Your task to perform on an android device: Open internet settings Image 0: 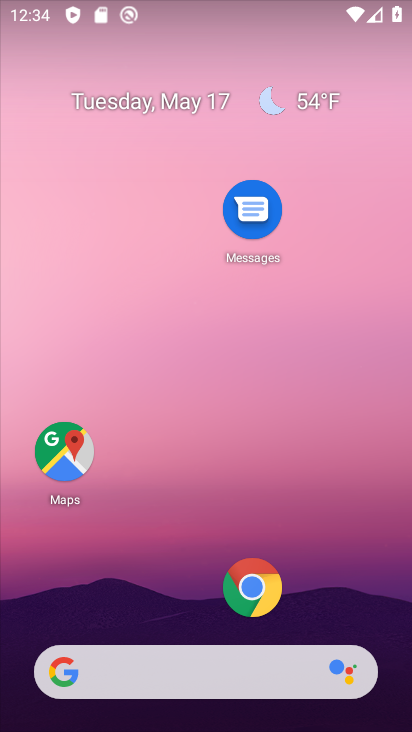
Step 0: drag from (178, 602) to (258, 66)
Your task to perform on an android device: Open internet settings Image 1: 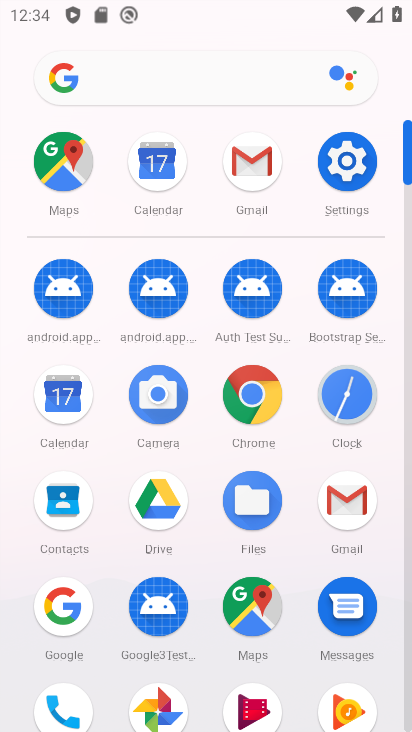
Step 1: click (356, 182)
Your task to perform on an android device: Open internet settings Image 2: 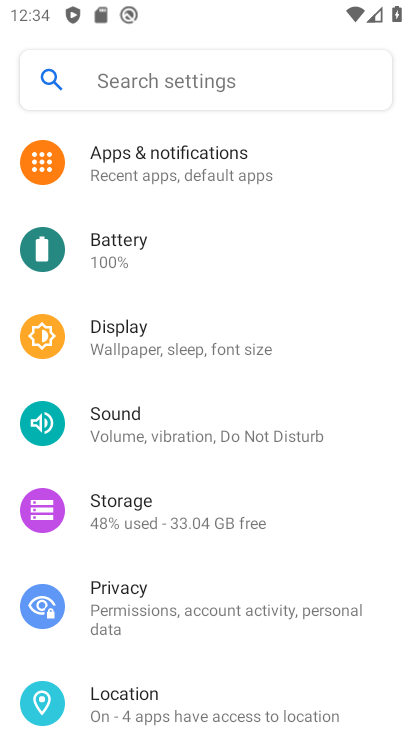
Step 2: drag from (255, 278) to (240, 575)
Your task to perform on an android device: Open internet settings Image 3: 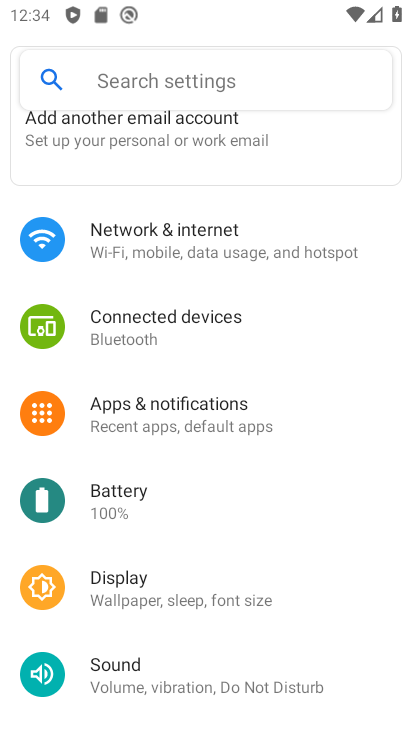
Step 3: click (200, 254)
Your task to perform on an android device: Open internet settings Image 4: 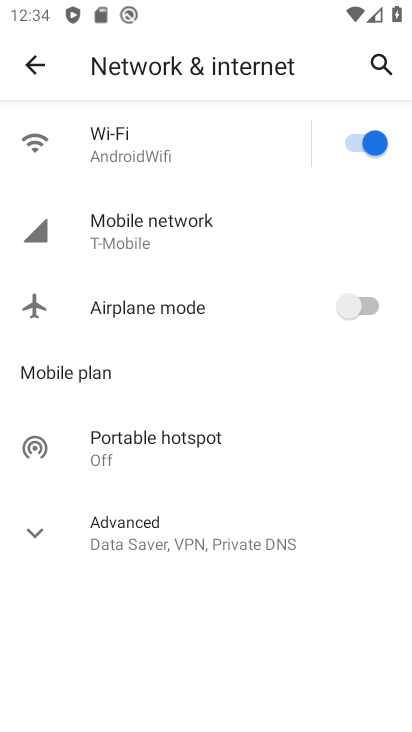
Step 4: task complete